Your task to perform on an android device: Open CNN.com Image 0: 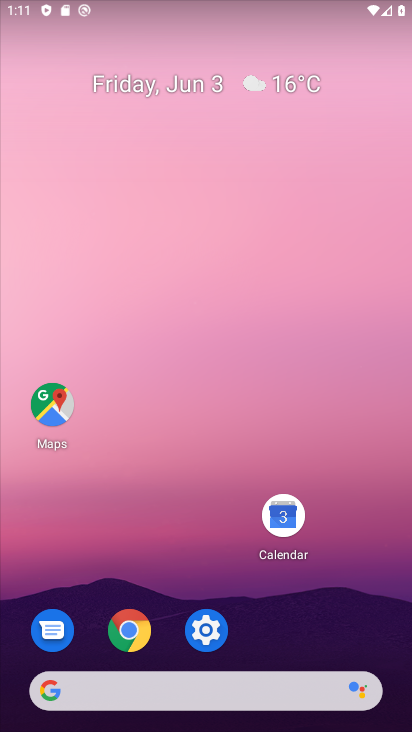
Step 0: drag from (223, 709) to (178, 183)
Your task to perform on an android device: Open CNN.com Image 1: 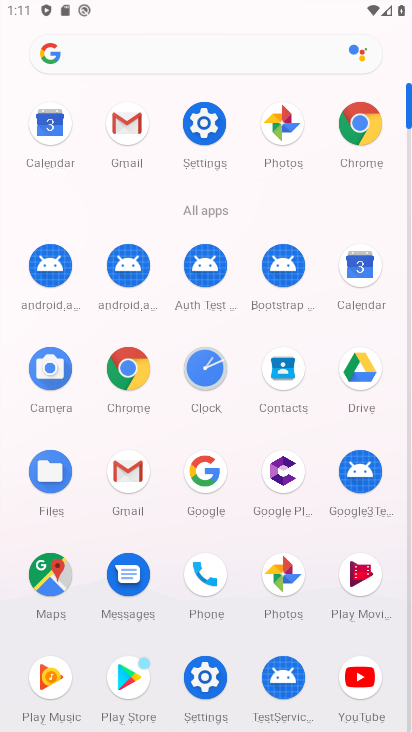
Step 1: click (359, 117)
Your task to perform on an android device: Open CNN.com Image 2: 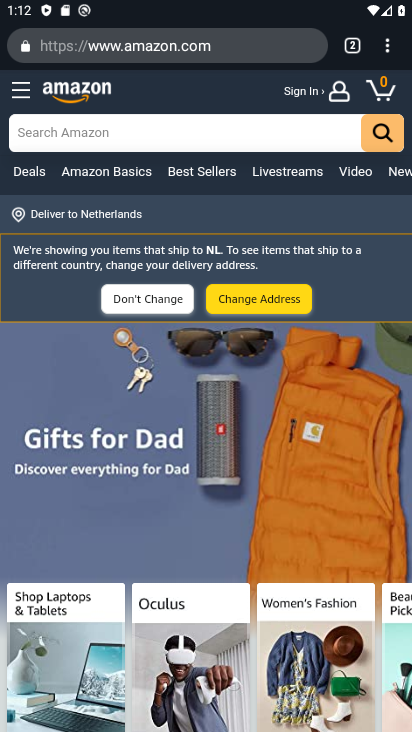
Step 2: click (119, 53)
Your task to perform on an android device: Open CNN.com Image 3: 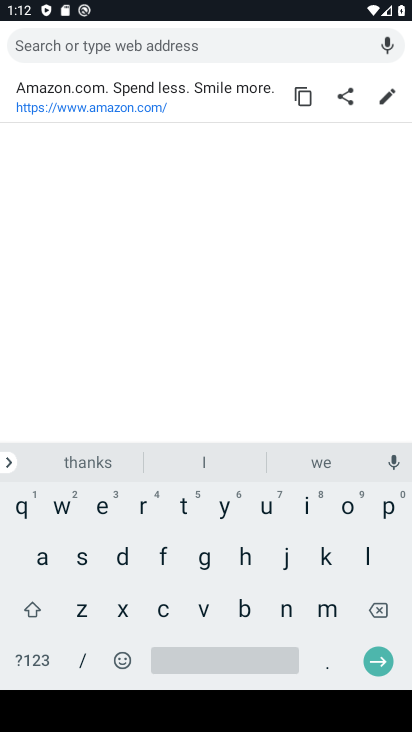
Step 3: click (152, 610)
Your task to perform on an android device: Open CNN.com Image 4: 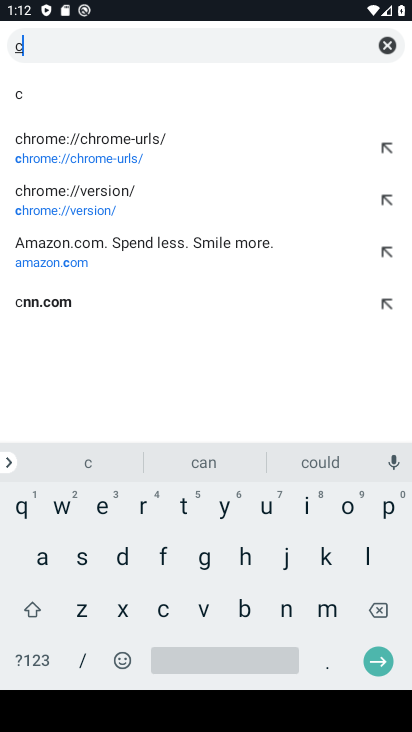
Step 4: click (296, 608)
Your task to perform on an android device: Open CNN.com Image 5: 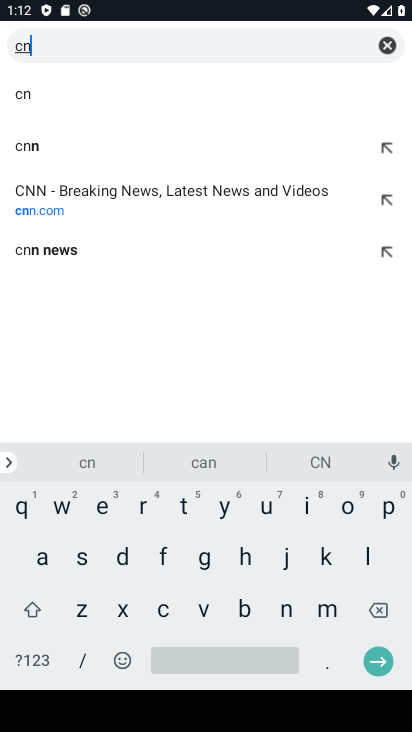
Step 5: click (38, 148)
Your task to perform on an android device: Open CNN.com Image 6: 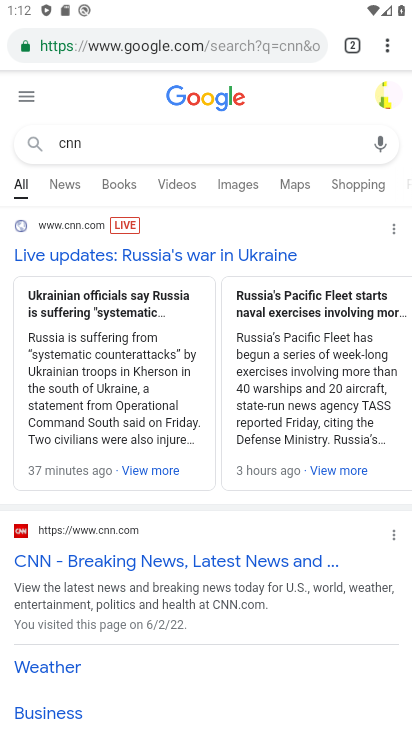
Step 6: click (106, 563)
Your task to perform on an android device: Open CNN.com Image 7: 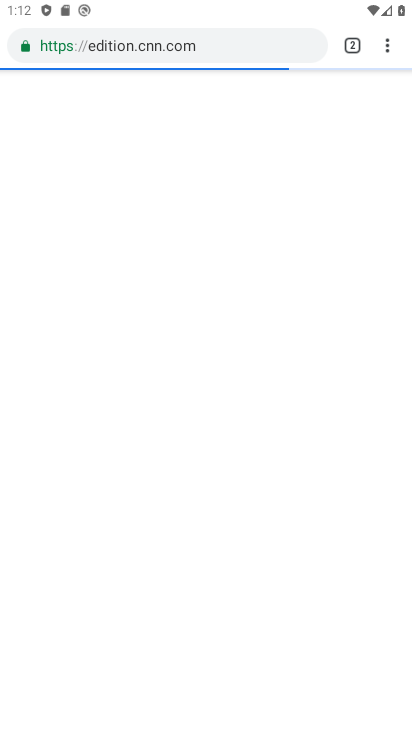
Step 7: task complete